Your task to perform on an android device: Open Google Chrome Image 0: 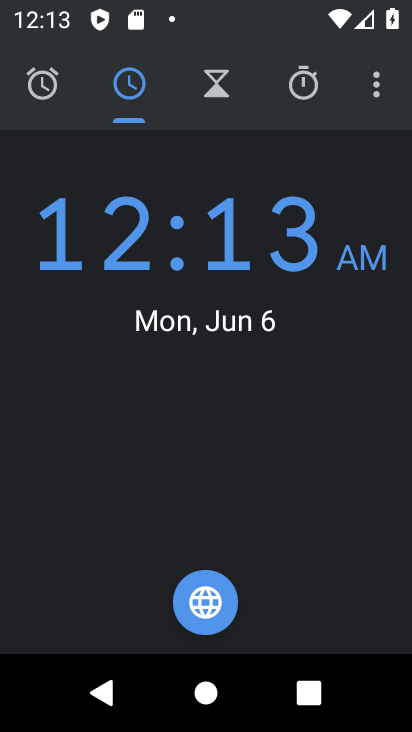
Step 0: press home button
Your task to perform on an android device: Open Google Chrome Image 1: 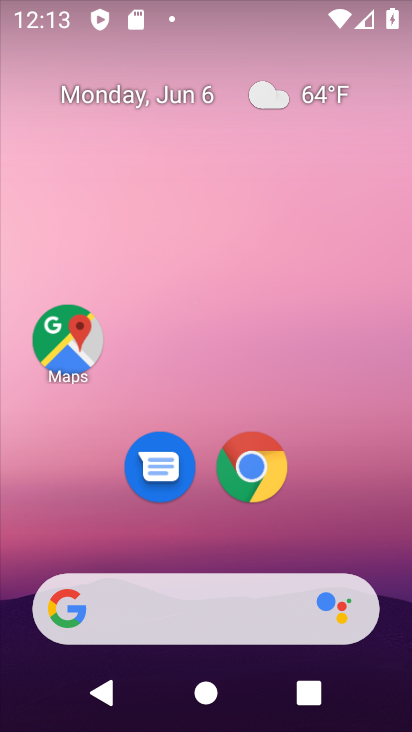
Step 1: click (394, 605)
Your task to perform on an android device: Open Google Chrome Image 2: 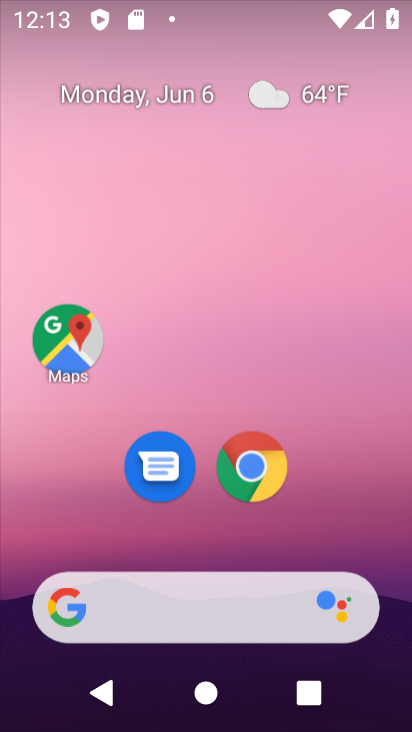
Step 2: click (277, 98)
Your task to perform on an android device: Open Google Chrome Image 3: 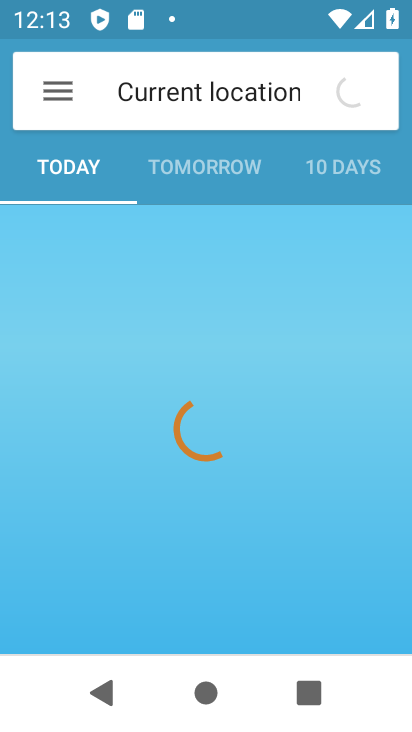
Step 3: press home button
Your task to perform on an android device: Open Google Chrome Image 4: 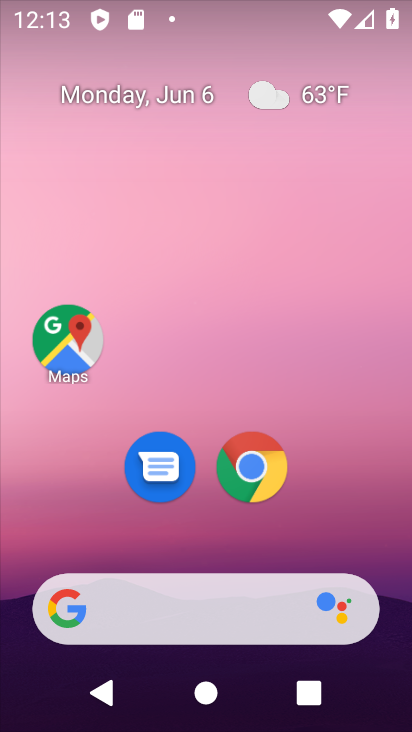
Step 4: drag from (399, 622) to (322, 46)
Your task to perform on an android device: Open Google Chrome Image 5: 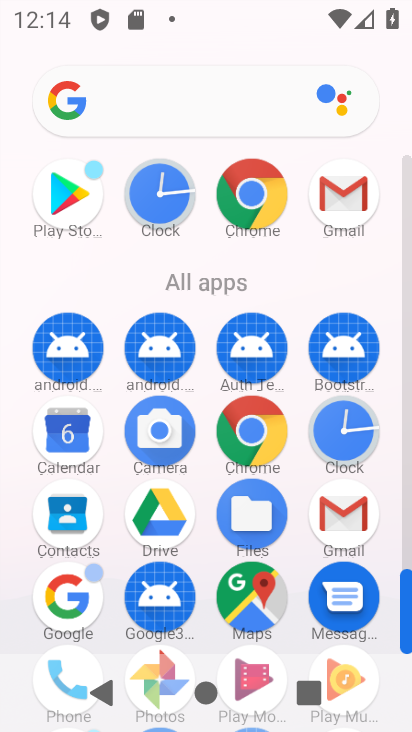
Step 5: click (242, 184)
Your task to perform on an android device: Open Google Chrome Image 6: 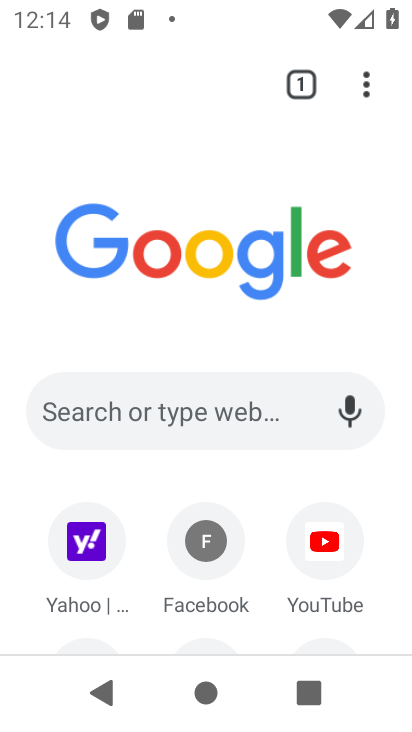
Step 6: task complete